Your task to perform on an android device: Show me the alarms in the clock app Image 0: 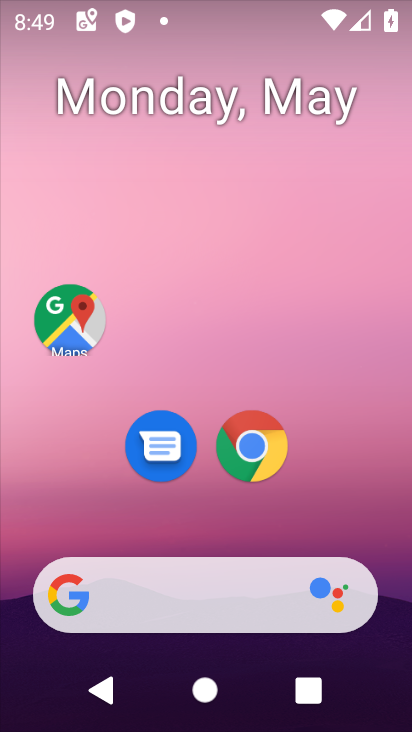
Step 0: press home button
Your task to perform on an android device: Show me the alarms in the clock app Image 1: 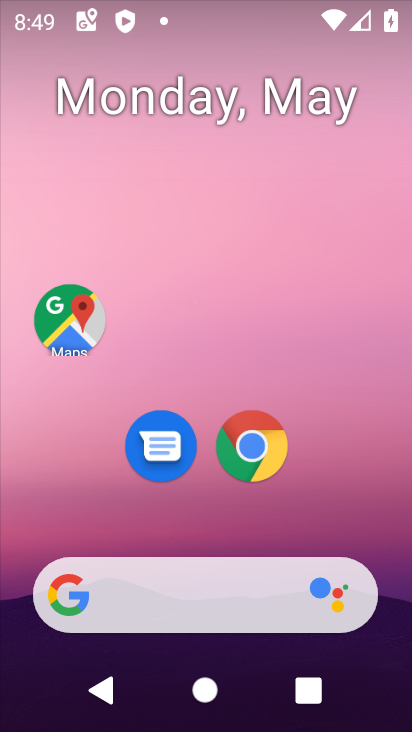
Step 1: drag from (212, 533) to (237, 83)
Your task to perform on an android device: Show me the alarms in the clock app Image 2: 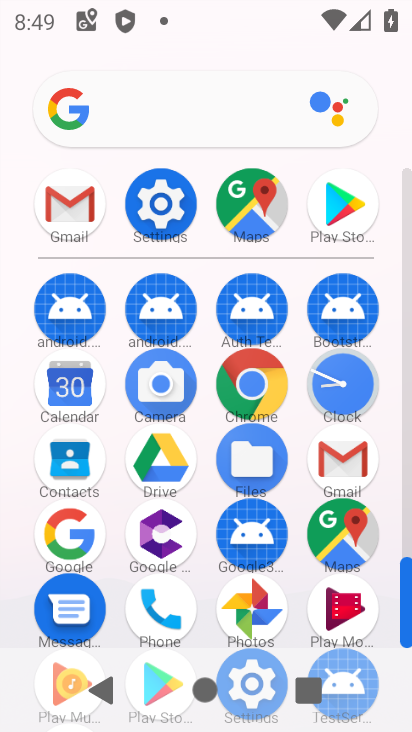
Step 2: click (342, 373)
Your task to perform on an android device: Show me the alarms in the clock app Image 3: 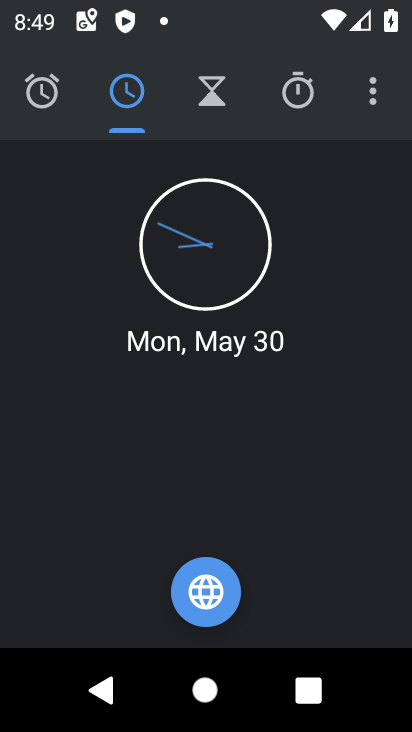
Step 3: click (40, 81)
Your task to perform on an android device: Show me the alarms in the clock app Image 4: 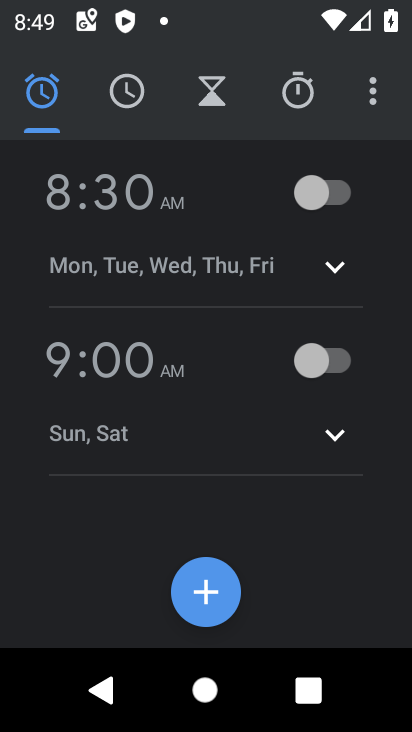
Step 4: task complete